Your task to perform on an android device: check out phone information Image 0: 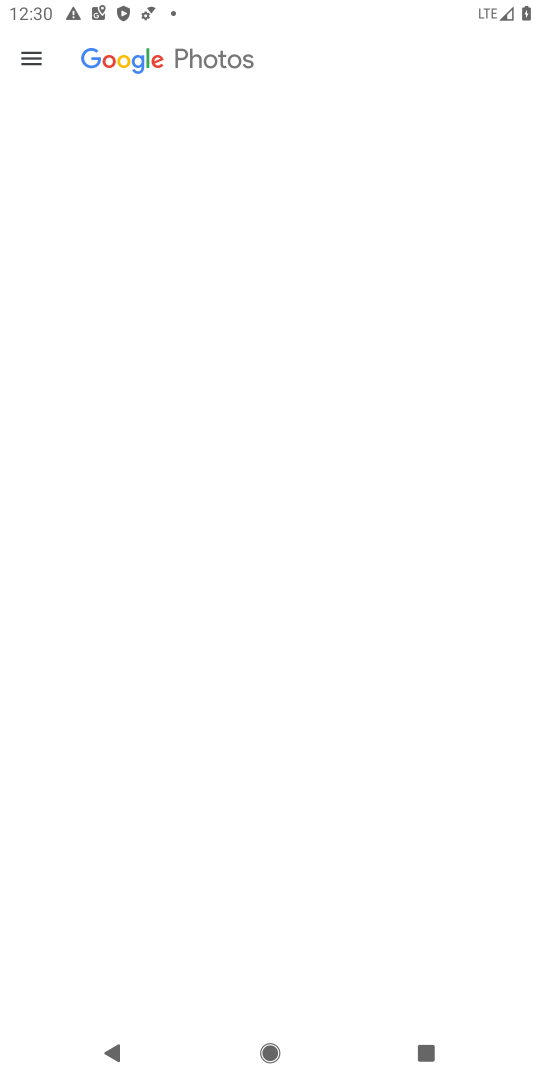
Step 0: press back button
Your task to perform on an android device: check out phone information Image 1: 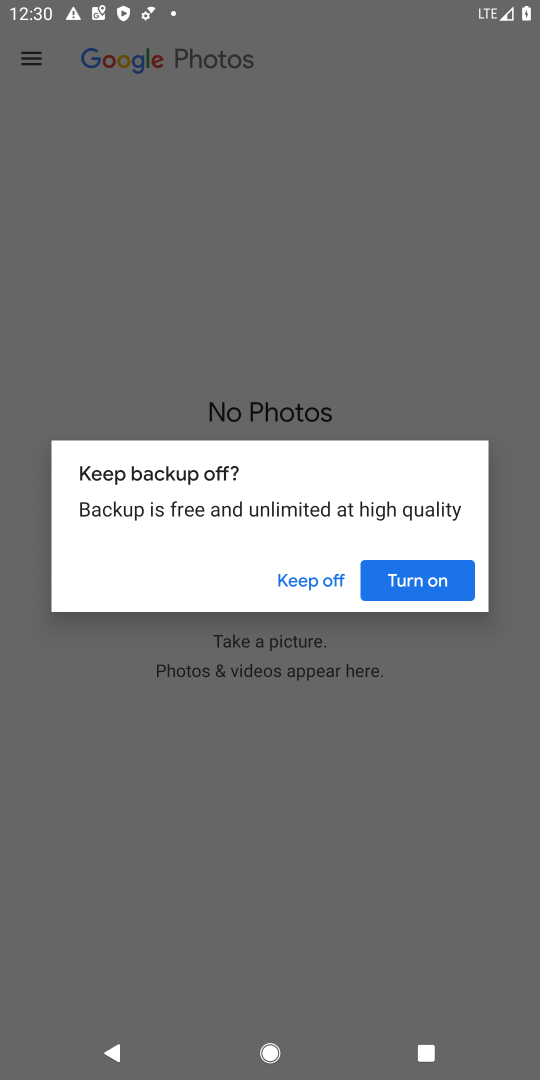
Step 1: click (286, 584)
Your task to perform on an android device: check out phone information Image 2: 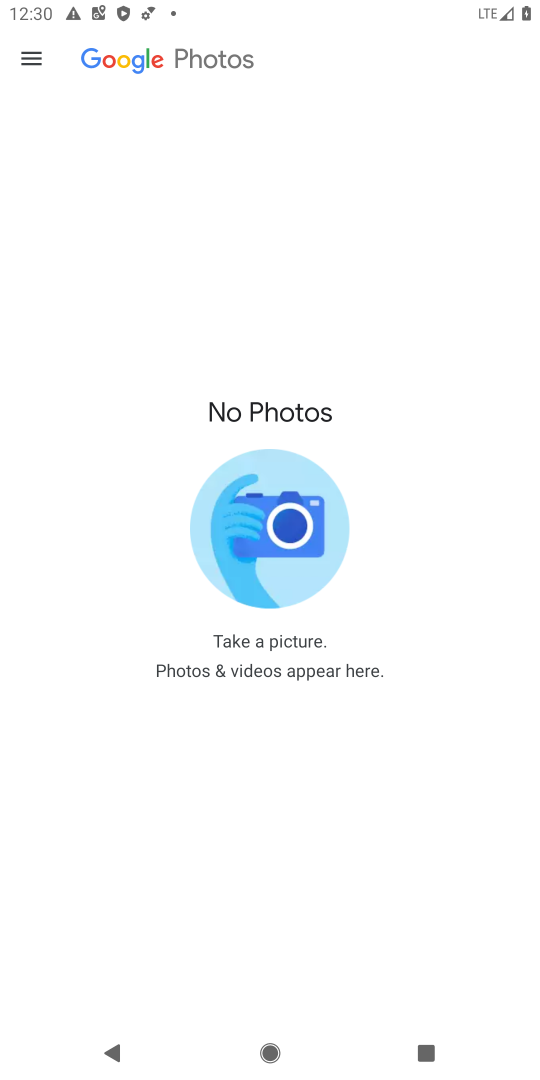
Step 2: press back button
Your task to perform on an android device: check out phone information Image 3: 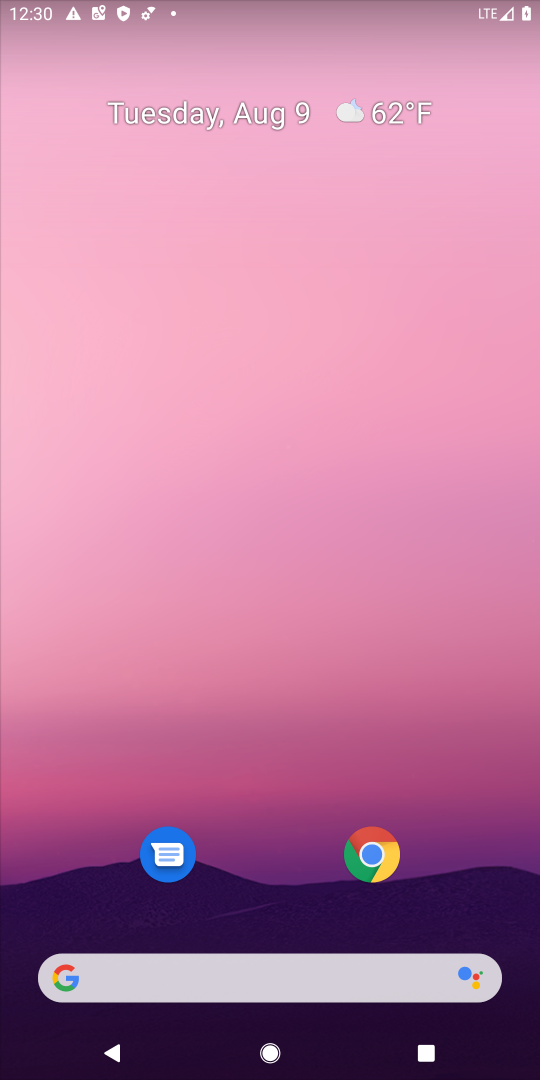
Step 3: drag from (269, 930) to (378, 130)
Your task to perform on an android device: check out phone information Image 4: 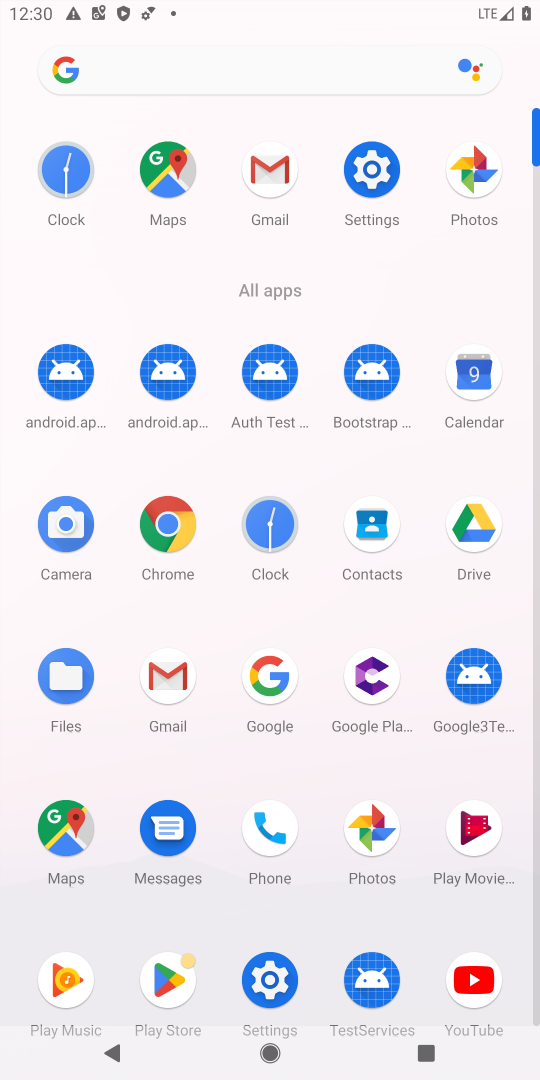
Step 4: click (363, 158)
Your task to perform on an android device: check out phone information Image 5: 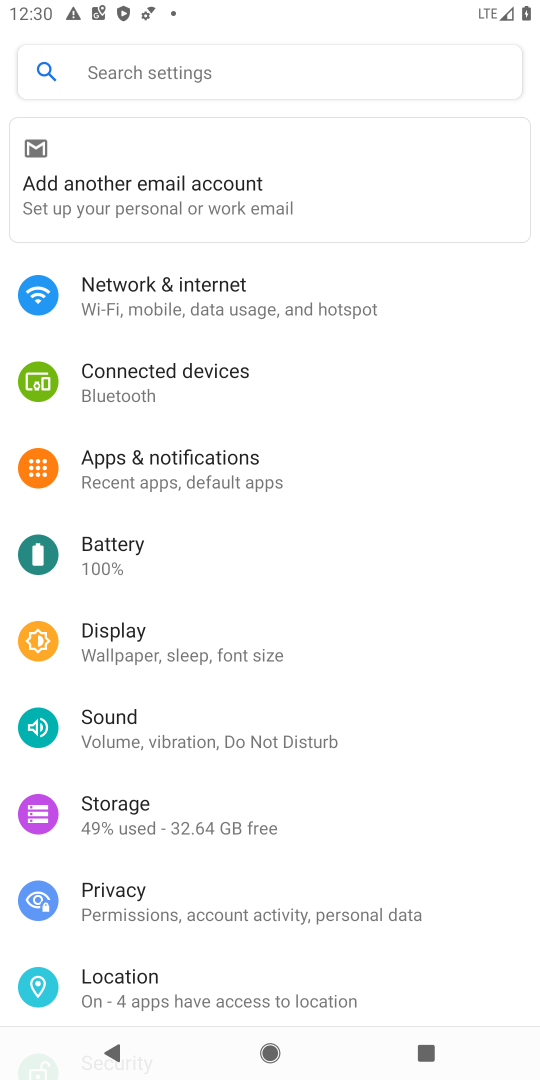
Step 5: drag from (231, 1025) to (451, 18)
Your task to perform on an android device: check out phone information Image 6: 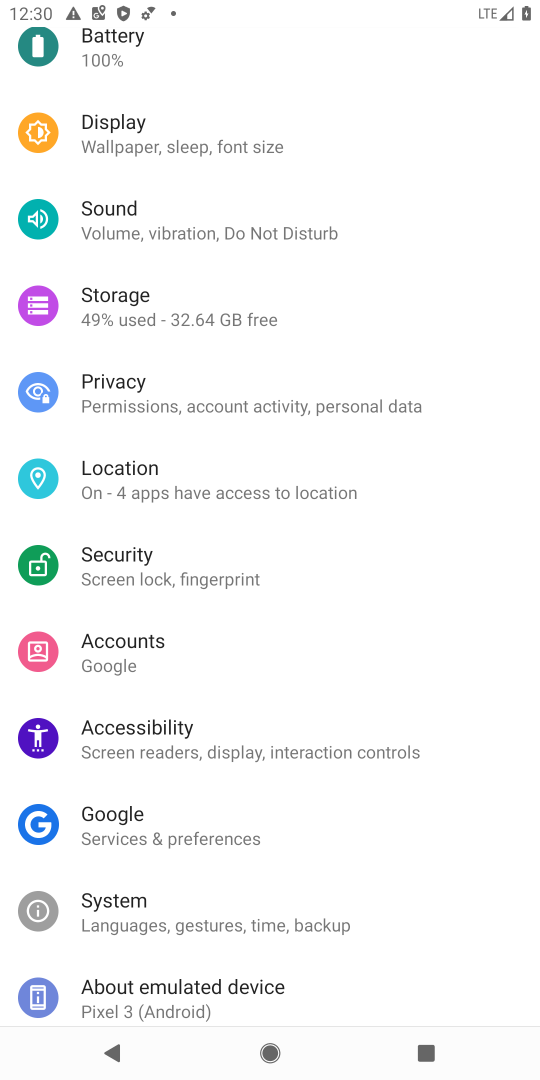
Step 6: drag from (169, 999) to (380, 6)
Your task to perform on an android device: check out phone information Image 7: 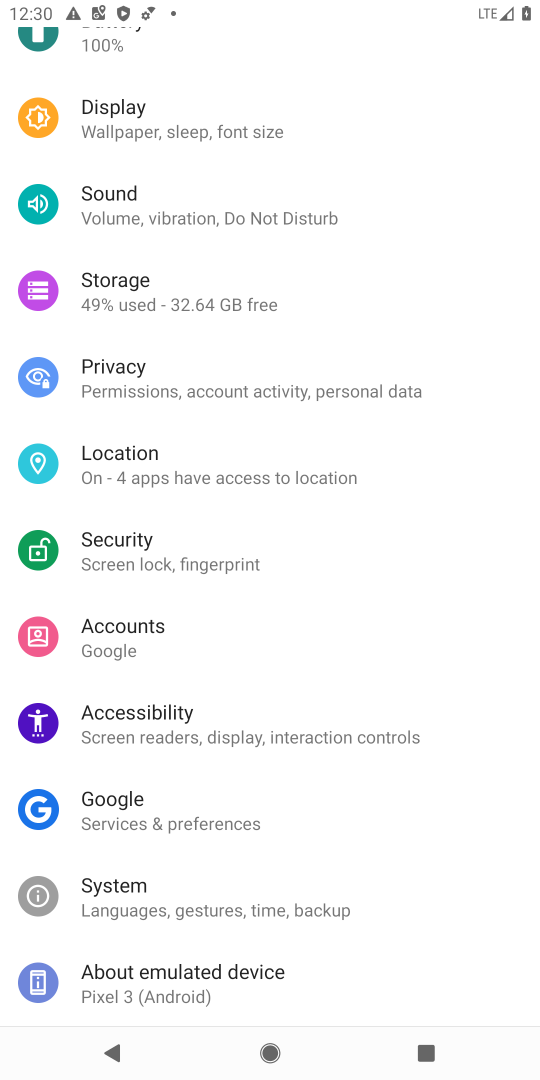
Step 7: click (177, 1000)
Your task to perform on an android device: check out phone information Image 8: 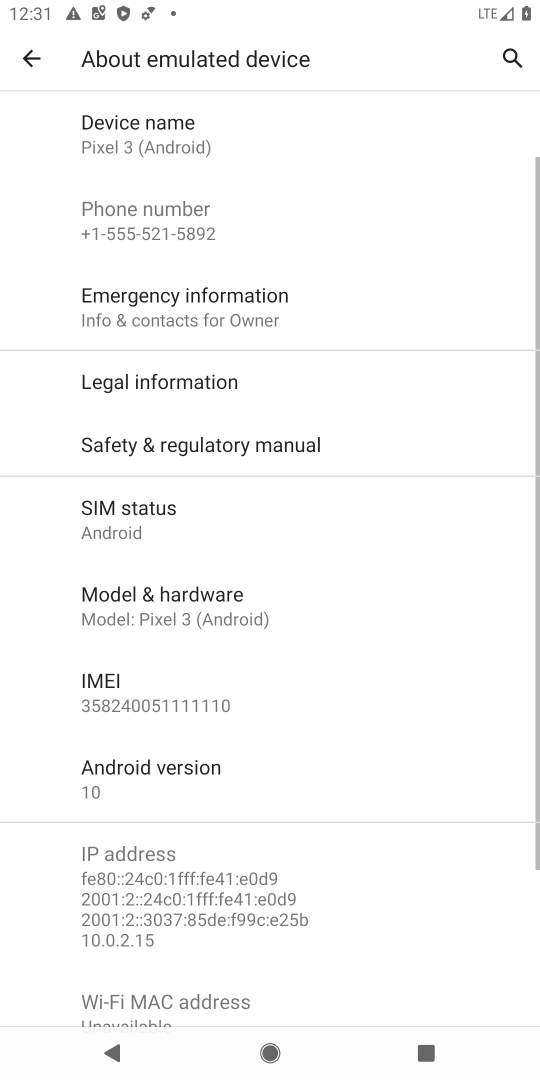
Step 8: task complete